Your task to perform on an android device: turn on bluetooth scan Image 0: 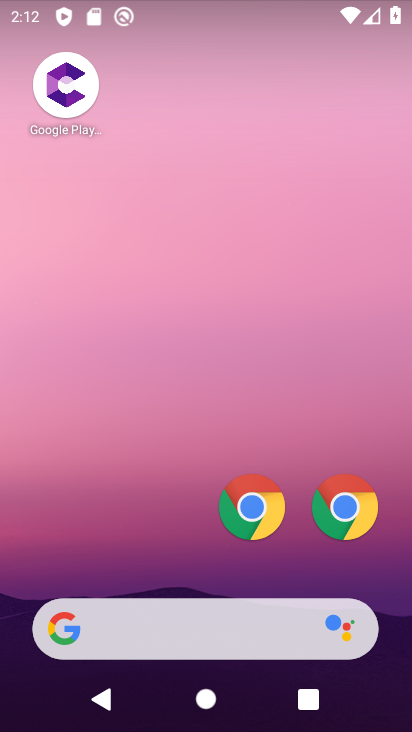
Step 0: drag from (269, 651) to (182, 258)
Your task to perform on an android device: turn on bluetooth scan Image 1: 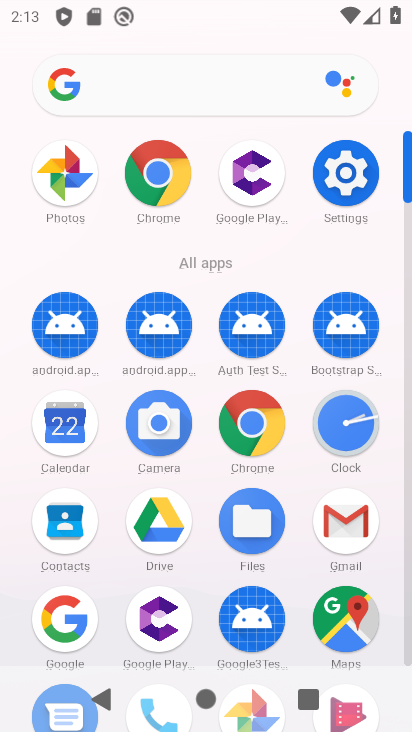
Step 1: click (345, 173)
Your task to perform on an android device: turn on bluetooth scan Image 2: 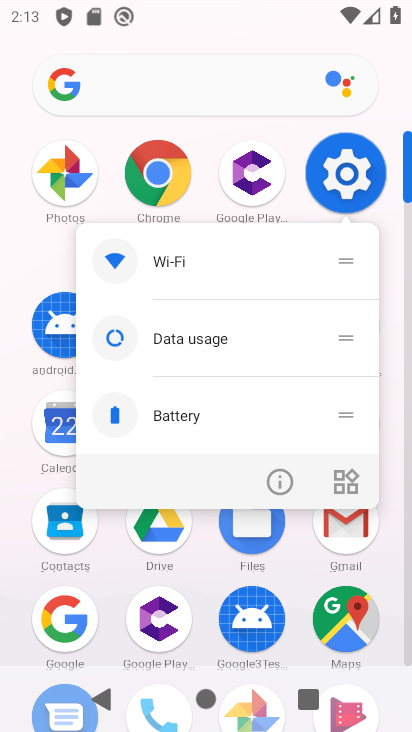
Step 2: click (345, 173)
Your task to perform on an android device: turn on bluetooth scan Image 3: 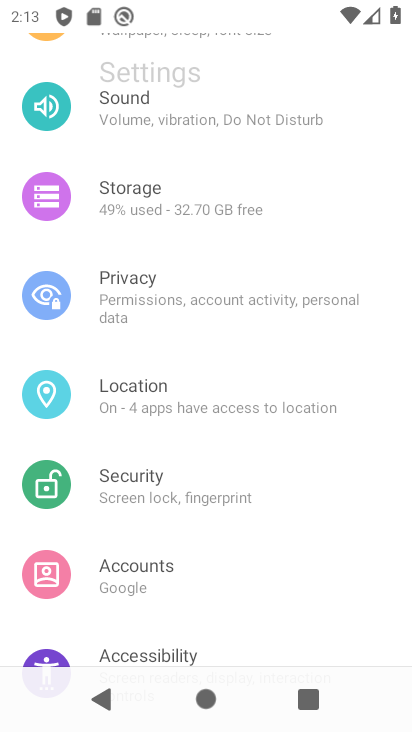
Step 3: click (348, 172)
Your task to perform on an android device: turn on bluetooth scan Image 4: 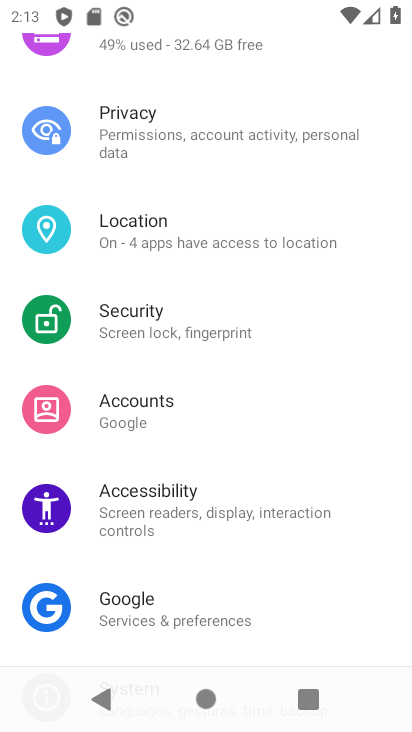
Step 4: click (350, 170)
Your task to perform on an android device: turn on bluetooth scan Image 5: 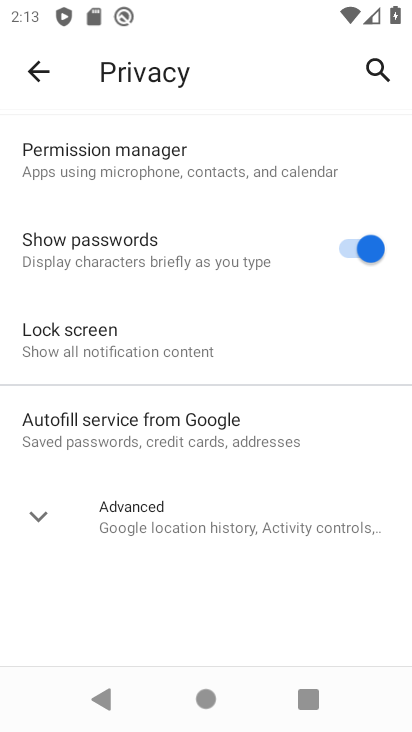
Step 5: click (38, 62)
Your task to perform on an android device: turn on bluetooth scan Image 6: 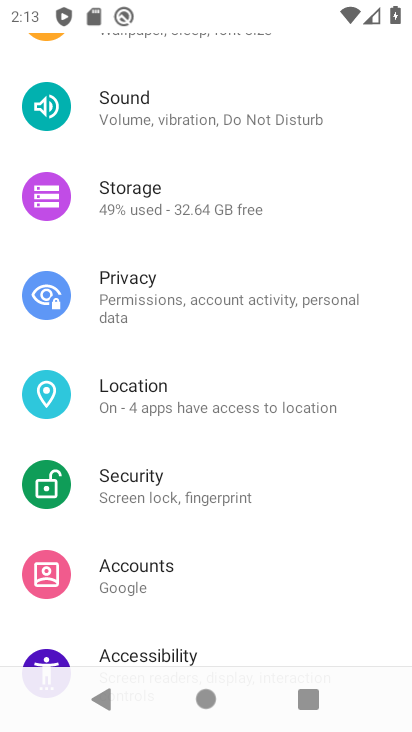
Step 6: click (157, 403)
Your task to perform on an android device: turn on bluetooth scan Image 7: 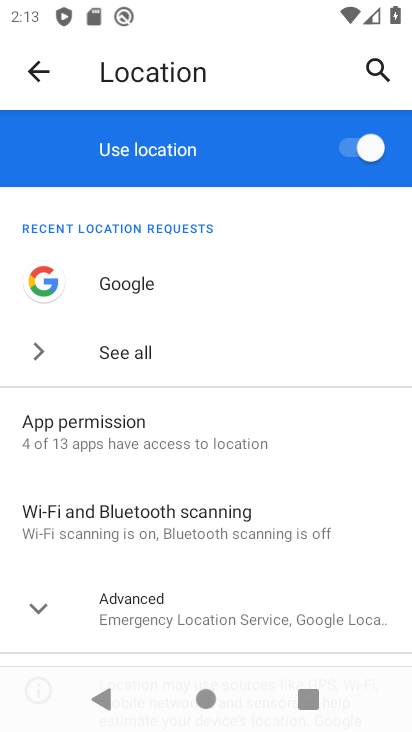
Step 7: click (137, 514)
Your task to perform on an android device: turn on bluetooth scan Image 8: 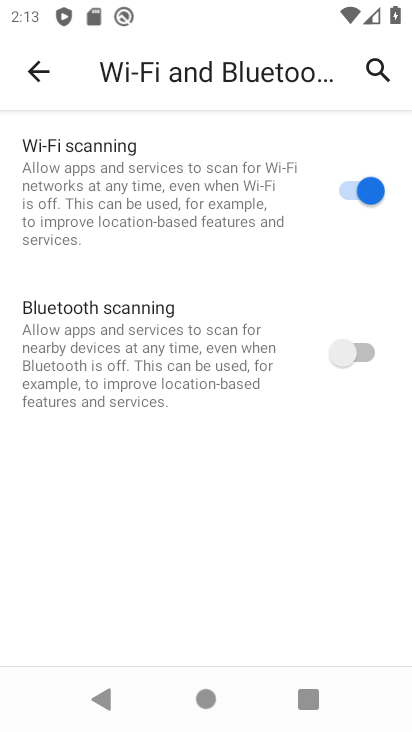
Step 8: click (349, 344)
Your task to perform on an android device: turn on bluetooth scan Image 9: 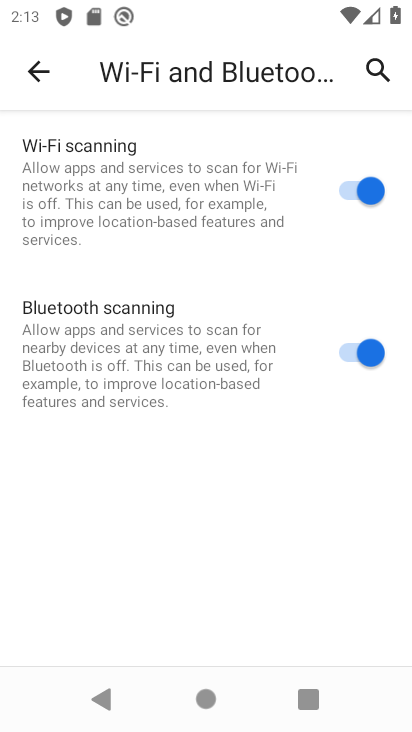
Step 9: task complete